Your task to perform on an android device: Open Google Chrome Image 0: 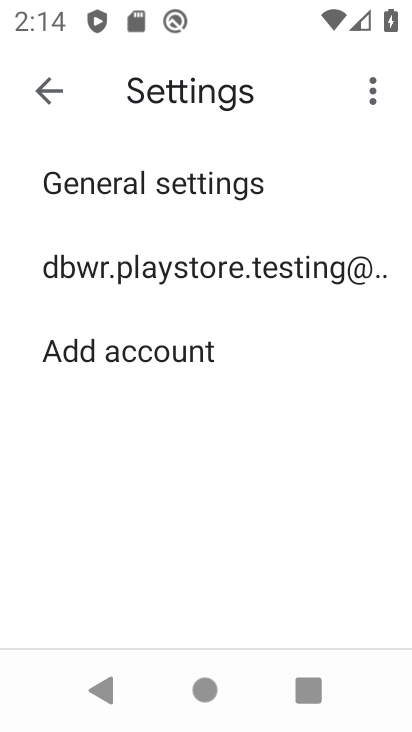
Step 0: press home button
Your task to perform on an android device: Open Google Chrome Image 1: 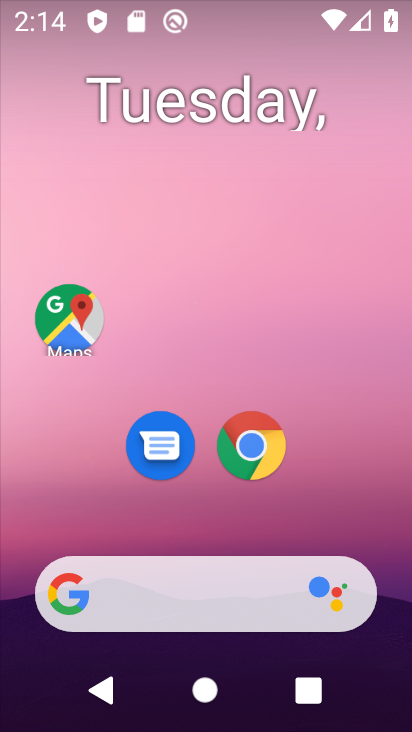
Step 1: click (259, 459)
Your task to perform on an android device: Open Google Chrome Image 2: 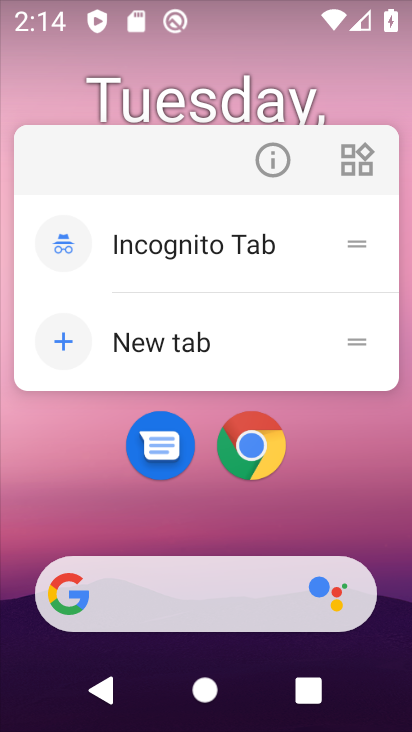
Step 2: click (265, 451)
Your task to perform on an android device: Open Google Chrome Image 3: 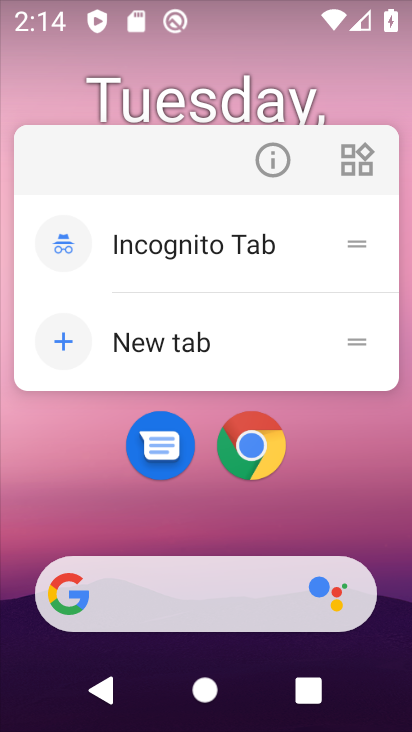
Step 3: click (266, 461)
Your task to perform on an android device: Open Google Chrome Image 4: 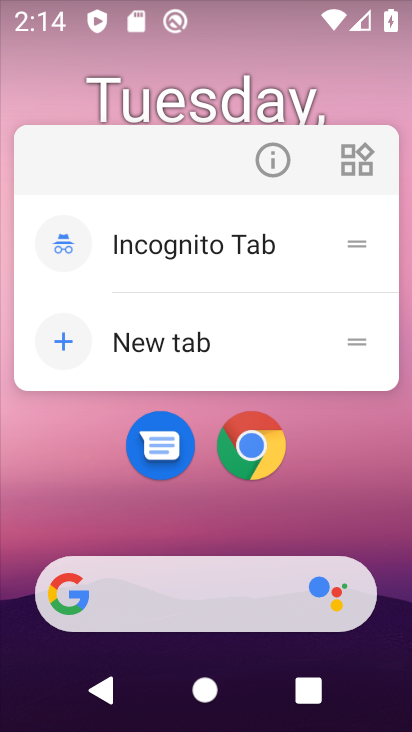
Step 4: click (265, 452)
Your task to perform on an android device: Open Google Chrome Image 5: 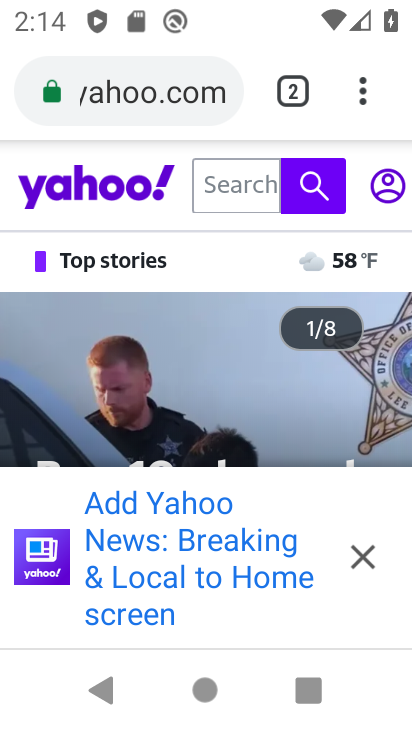
Step 5: task complete